Your task to perform on an android device: Open display settings Image 0: 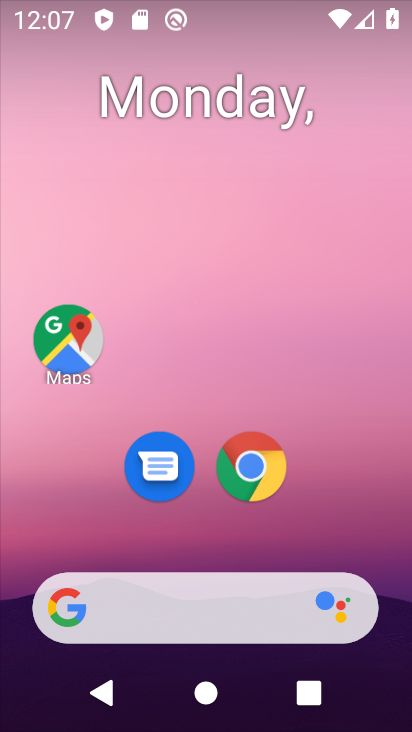
Step 0: press home button
Your task to perform on an android device: Open display settings Image 1: 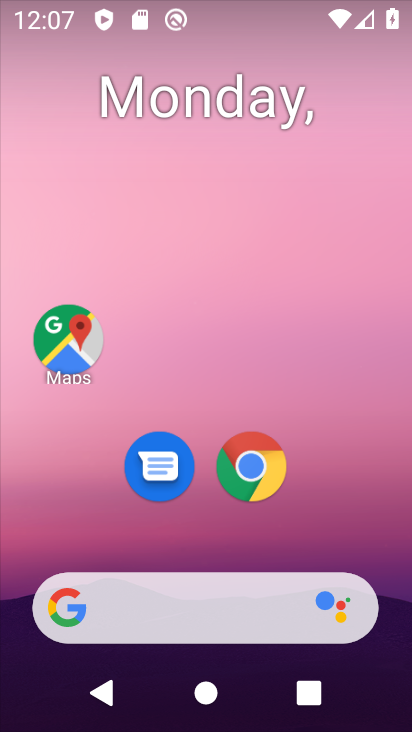
Step 1: drag from (377, 510) to (303, 50)
Your task to perform on an android device: Open display settings Image 2: 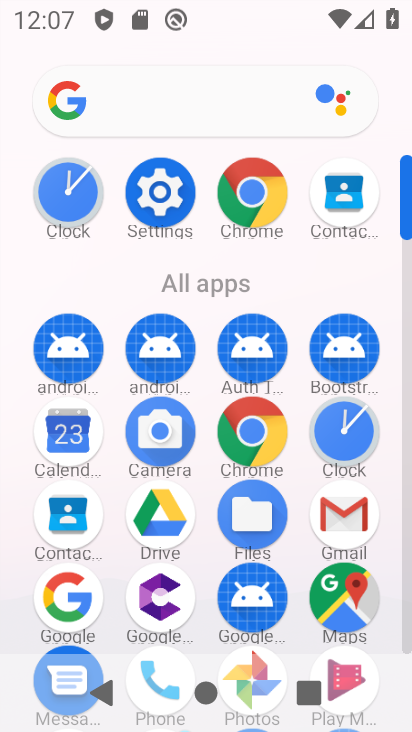
Step 2: click (155, 214)
Your task to perform on an android device: Open display settings Image 3: 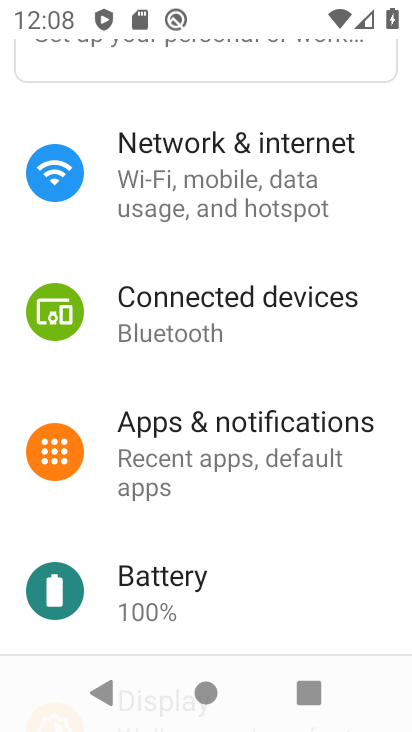
Step 3: drag from (191, 558) to (213, 392)
Your task to perform on an android device: Open display settings Image 4: 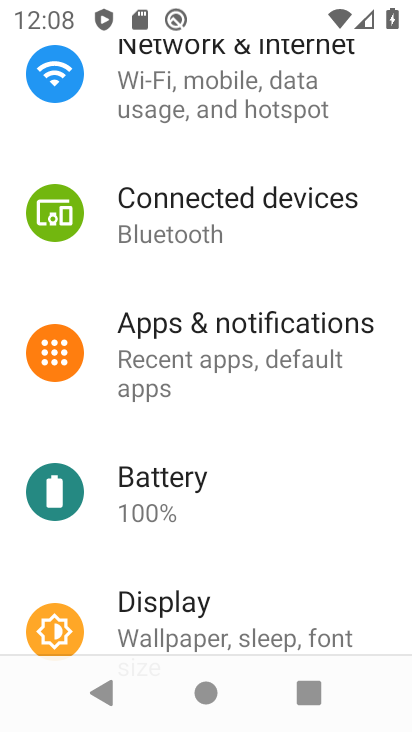
Step 4: click (189, 591)
Your task to perform on an android device: Open display settings Image 5: 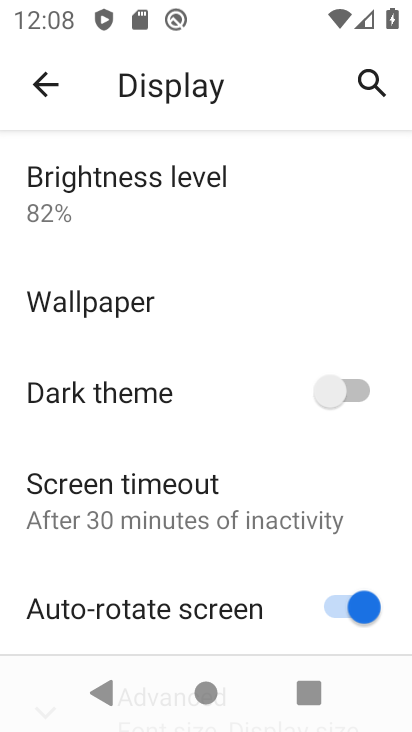
Step 5: task complete